Your task to perform on an android device: open app "WhatsApp Messenger" (install if not already installed) and enter user name: "cartons@outlook.com" and password: "approximated" Image 0: 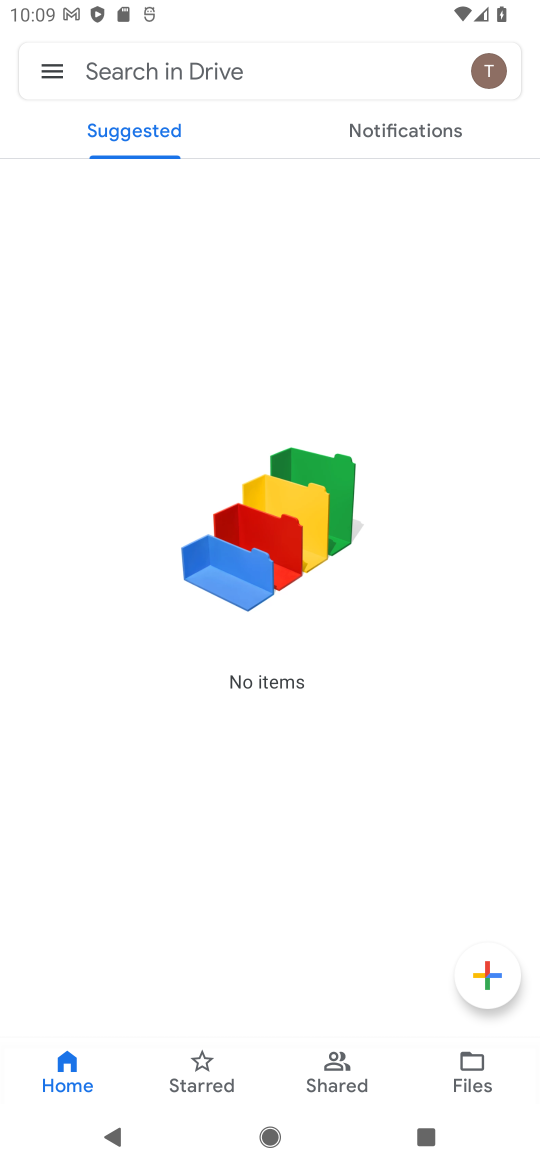
Step 0: press home button
Your task to perform on an android device: open app "WhatsApp Messenger" (install if not already installed) and enter user name: "cartons@outlook.com" and password: "approximated" Image 1: 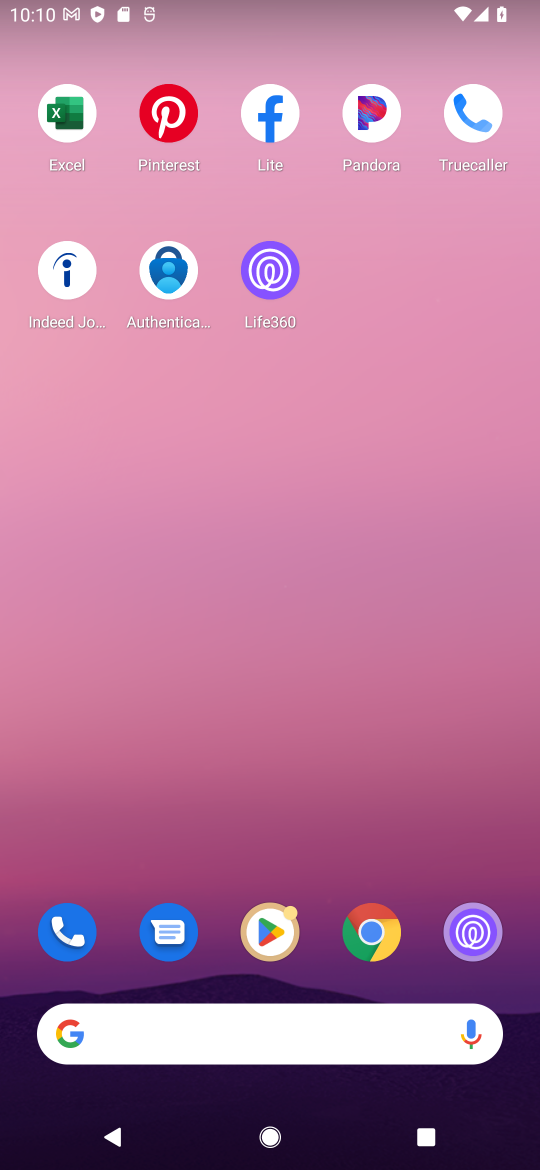
Step 1: click (275, 953)
Your task to perform on an android device: open app "WhatsApp Messenger" (install if not already installed) and enter user name: "cartons@outlook.com" and password: "approximated" Image 2: 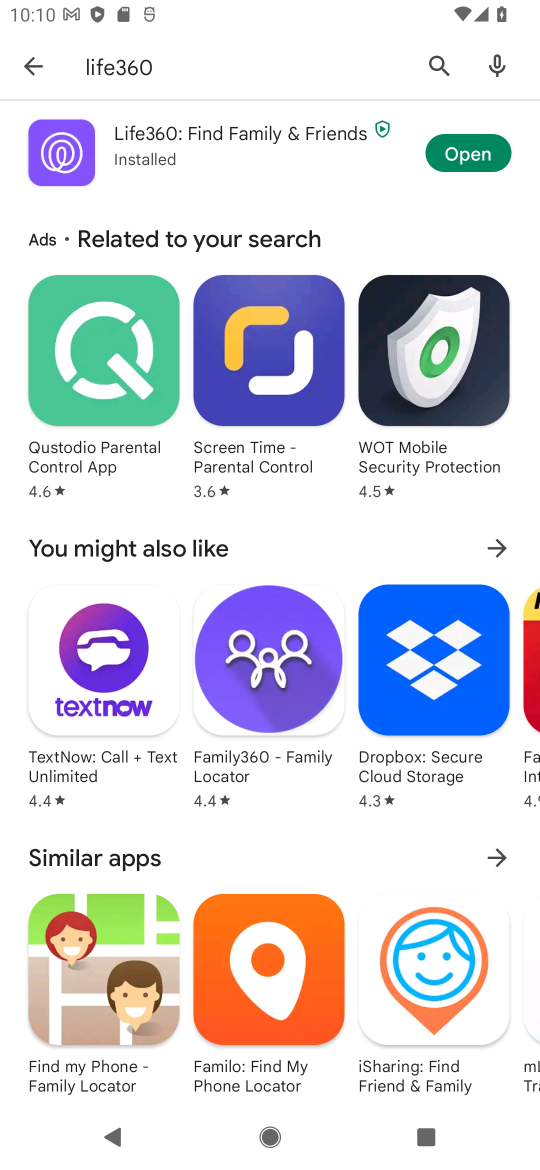
Step 2: click (429, 72)
Your task to perform on an android device: open app "WhatsApp Messenger" (install if not already installed) and enter user name: "cartons@outlook.com" and password: "approximated" Image 3: 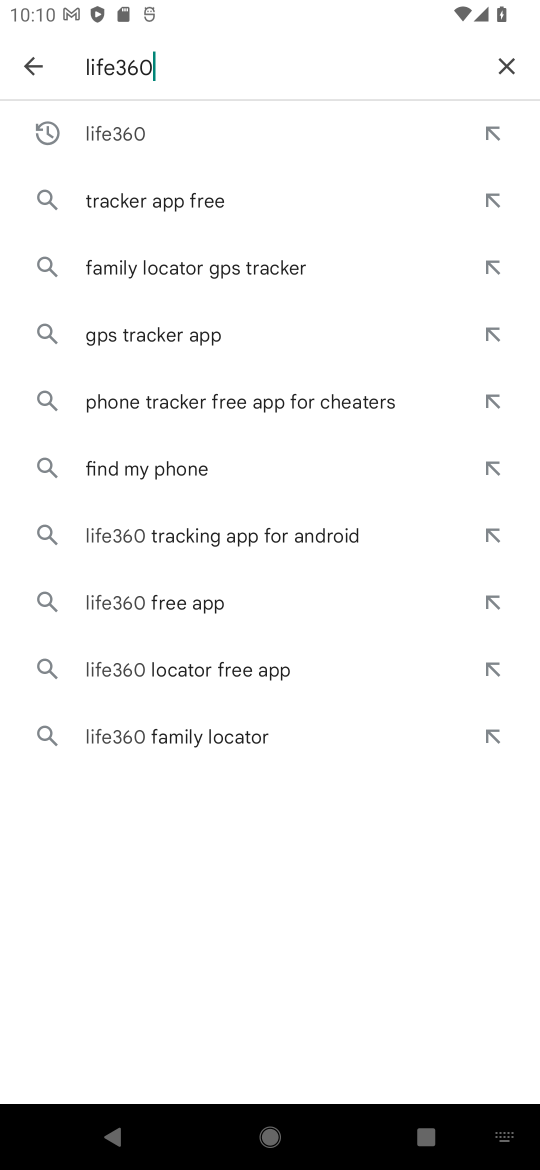
Step 3: click (503, 65)
Your task to perform on an android device: open app "WhatsApp Messenger" (install if not already installed) and enter user name: "cartons@outlook.com" and password: "approximated" Image 4: 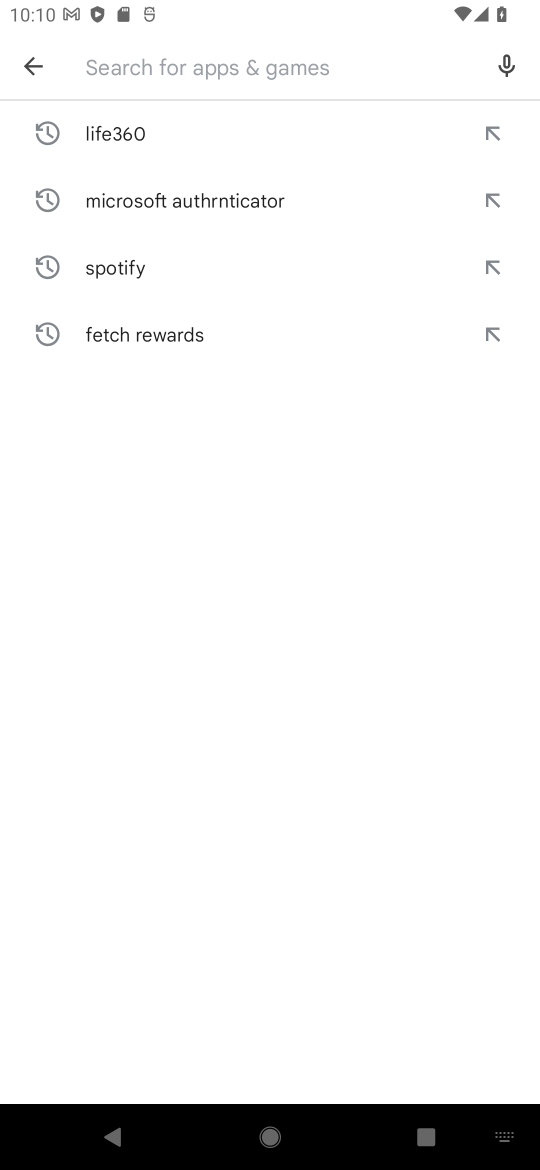
Step 4: type "whatsapp"
Your task to perform on an android device: open app "WhatsApp Messenger" (install if not already installed) and enter user name: "cartons@outlook.com" and password: "approximated" Image 5: 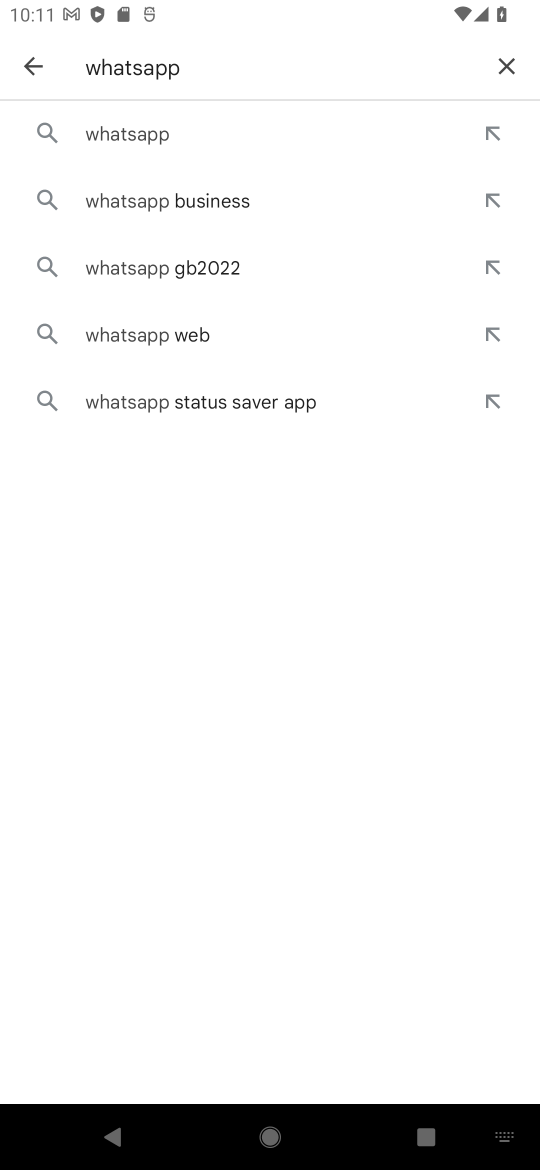
Step 5: click (132, 125)
Your task to perform on an android device: open app "WhatsApp Messenger" (install if not already installed) and enter user name: "cartons@outlook.com" and password: "approximated" Image 6: 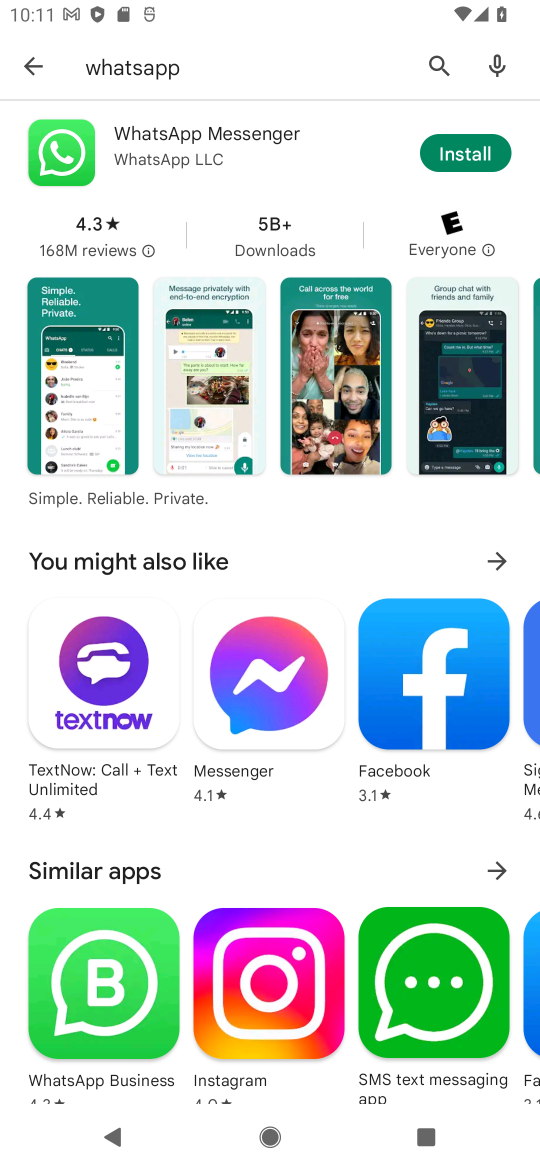
Step 6: click (474, 157)
Your task to perform on an android device: open app "WhatsApp Messenger" (install if not already installed) and enter user name: "cartons@outlook.com" and password: "approximated" Image 7: 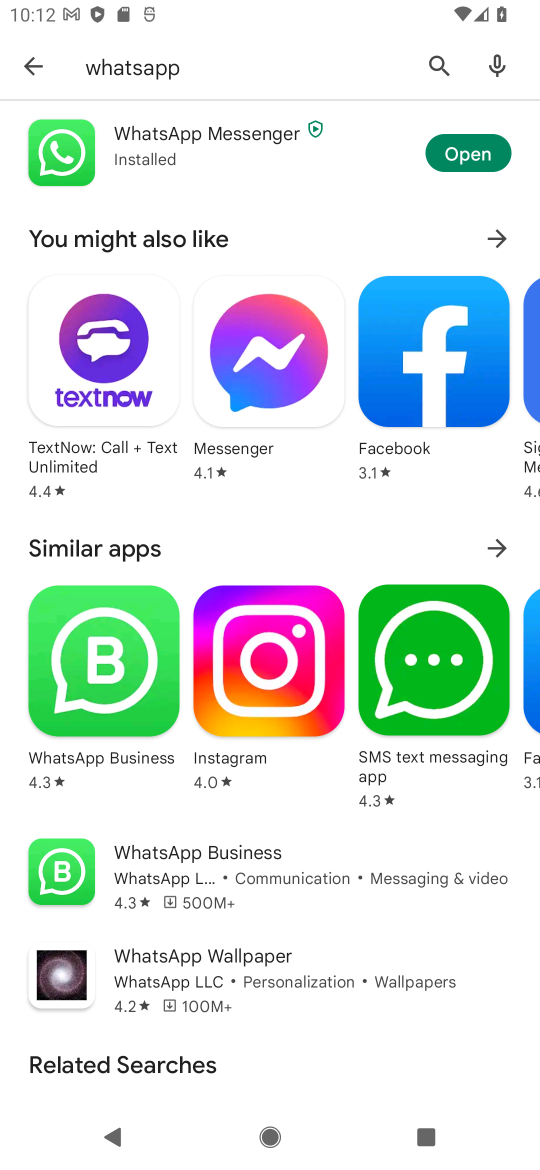
Step 7: click (486, 158)
Your task to perform on an android device: open app "WhatsApp Messenger" (install if not already installed) and enter user name: "cartons@outlook.com" and password: "approximated" Image 8: 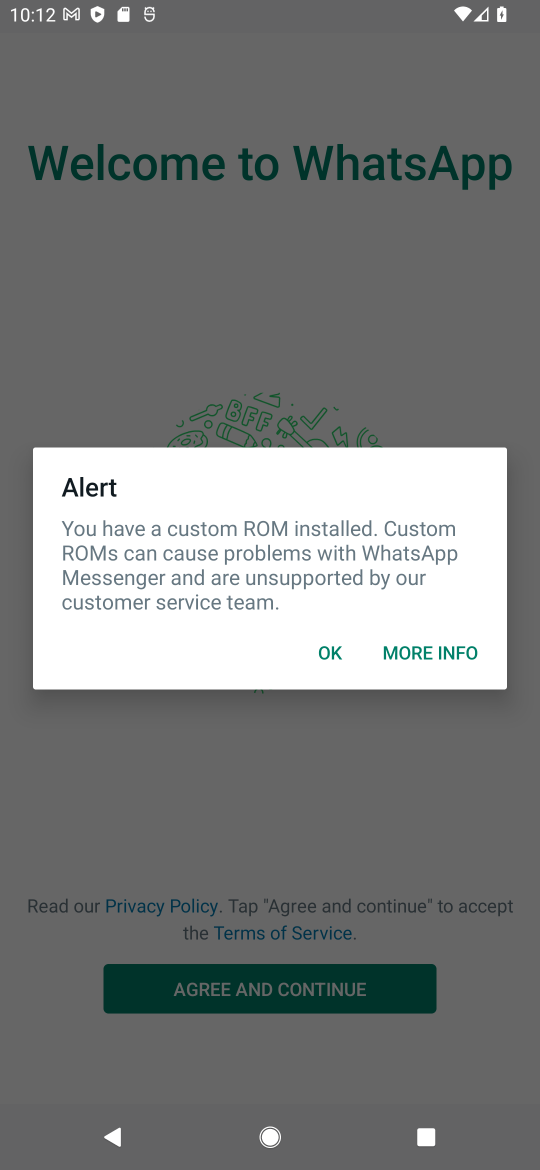
Step 8: click (330, 663)
Your task to perform on an android device: open app "WhatsApp Messenger" (install if not already installed) and enter user name: "cartons@outlook.com" and password: "approximated" Image 9: 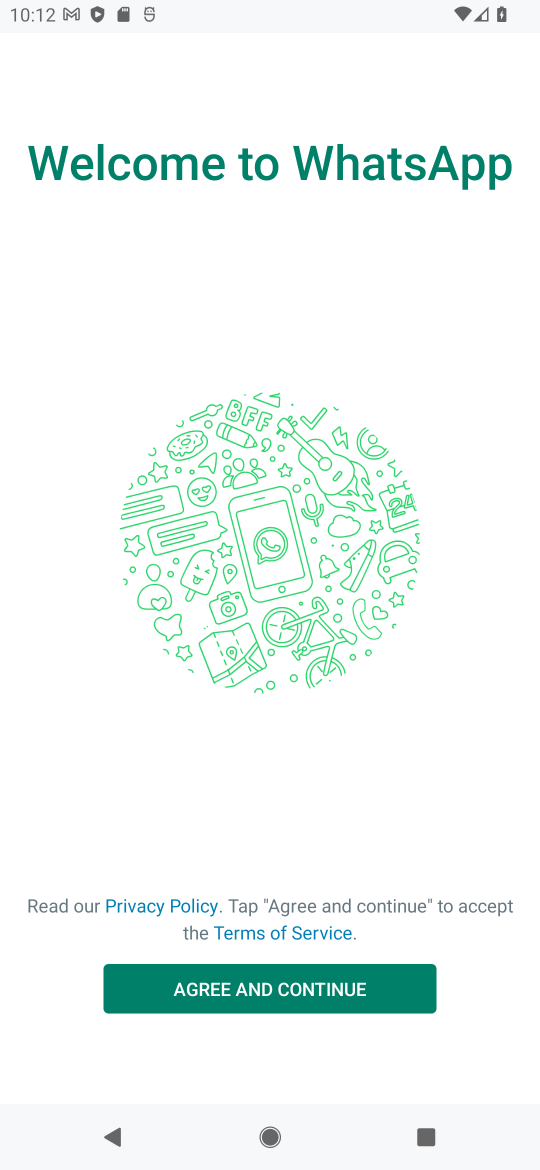
Step 9: task complete